Your task to perform on an android device: change alarm snooze length Image 0: 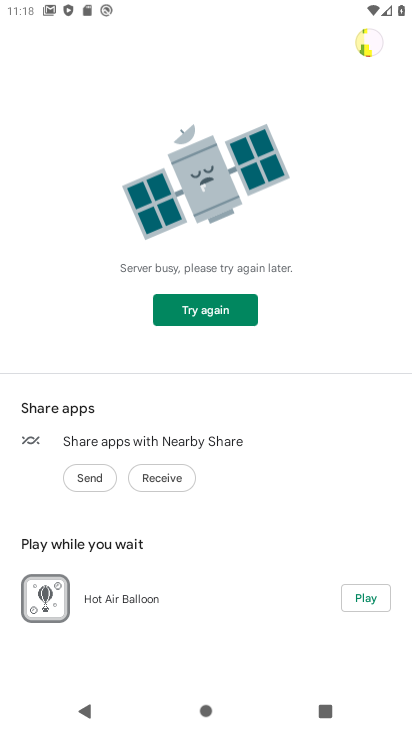
Step 0: press home button
Your task to perform on an android device: change alarm snooze length Image 1: 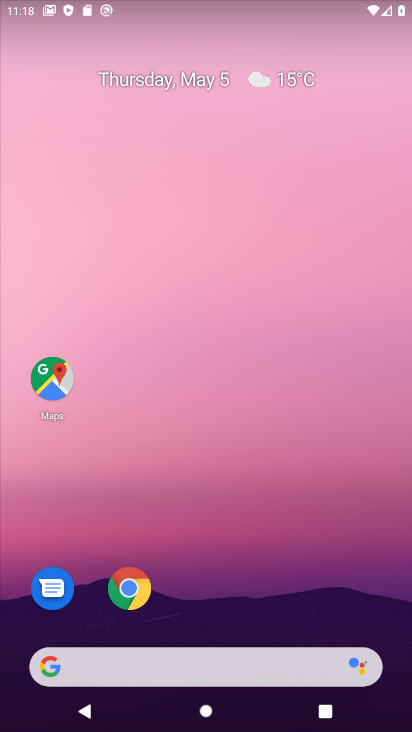
Step 1: drag from (238, 533) to (302, 131)
Your task to perform on an android device: change alarm snooze length Image 2: 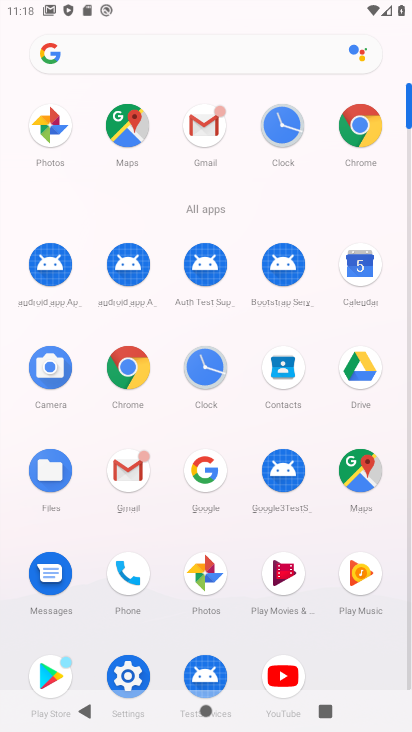
Step 2: click (286, 124)
Your task to perform on an android device: change alarm snooze length Image 3: 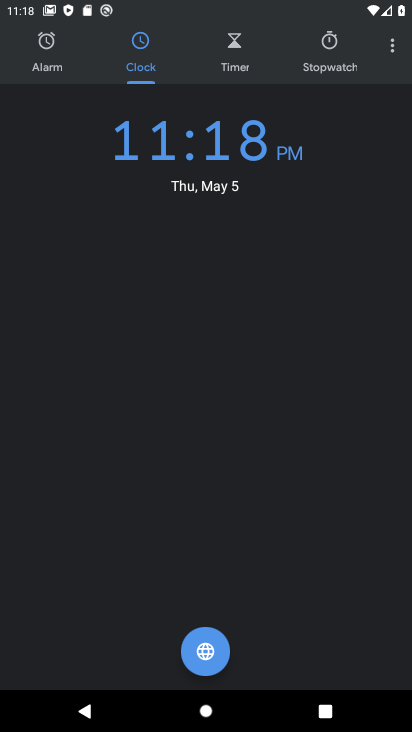
Step 3: click (391, 47)
Your task to perform on an android device: change alarm snooze length Image 4: 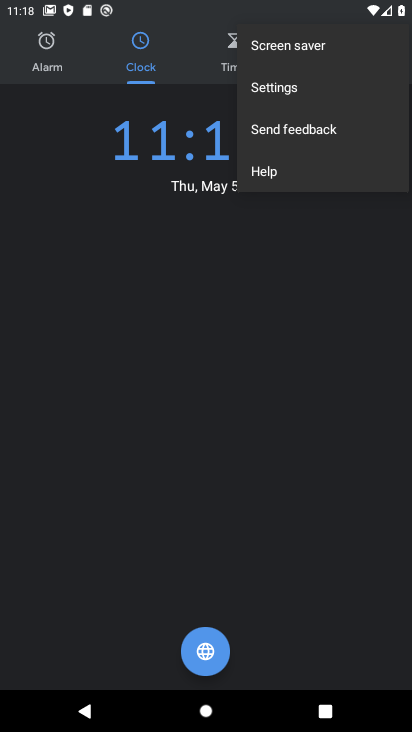
Step 4: click (337, 88)
Your task to perform on an android device: change alarm snooze length Image 5: 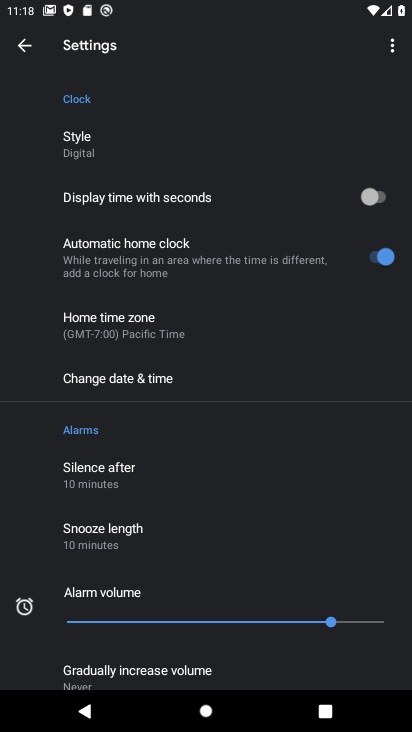
Step 5: click (140, 530)
Your task to perform on an android device: change alarm snooze length Image 6: 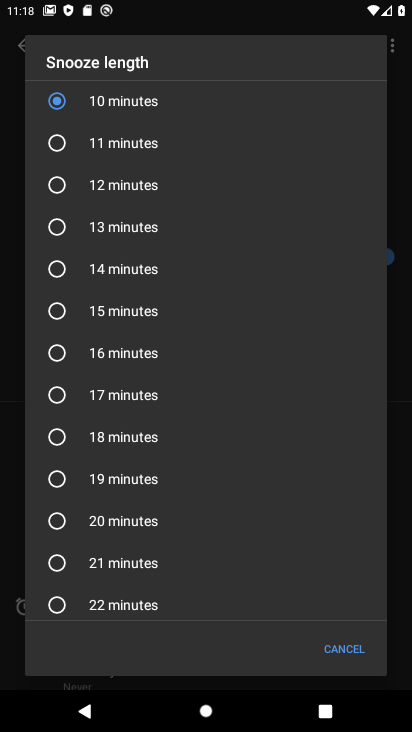
Step 6: click (141, 132)
Your task to perform on an android device: change alarm snooze length Image 7: 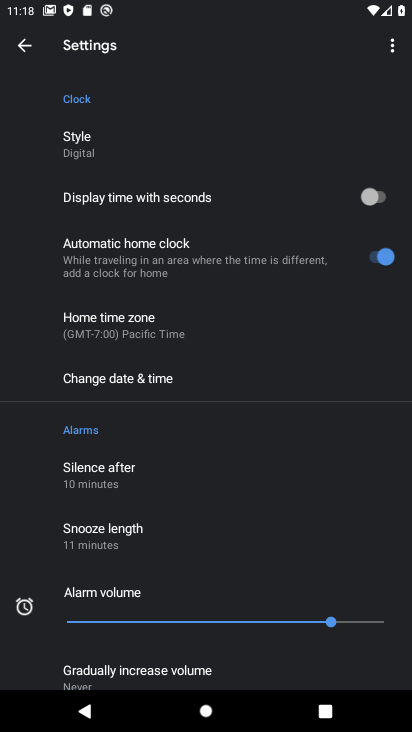
Step 7: task complete